Your task to perform on an android device: turn on sleep mode Image 0: 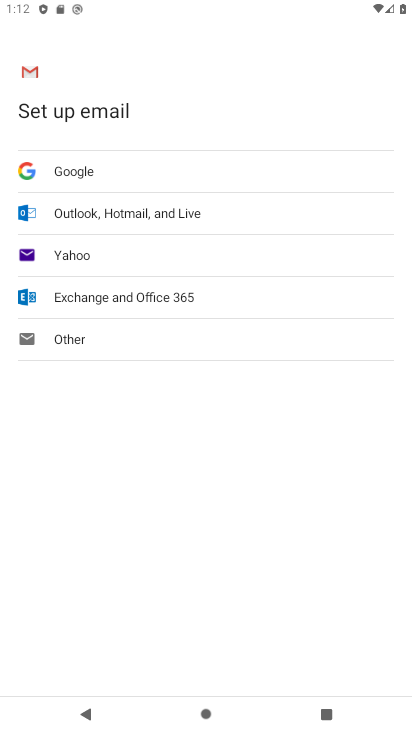
Step 0: press home button
Your task to perform on an android device: turn on sleep mode Image 1: 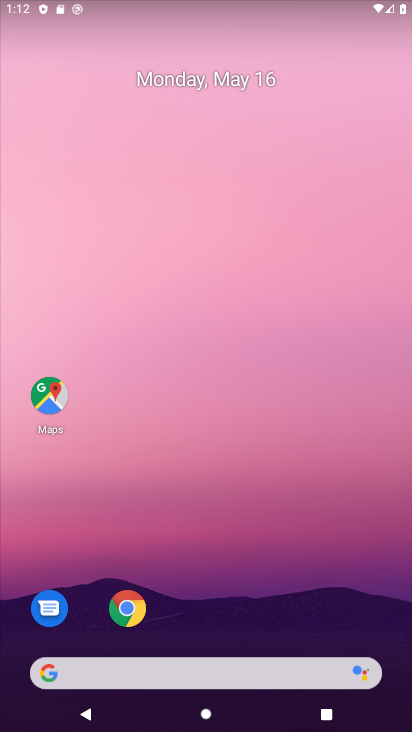
Step 1: drag from (309, 482) to (343, 177)
Your task to perform on an android device: turn on sleep mode Image 2: 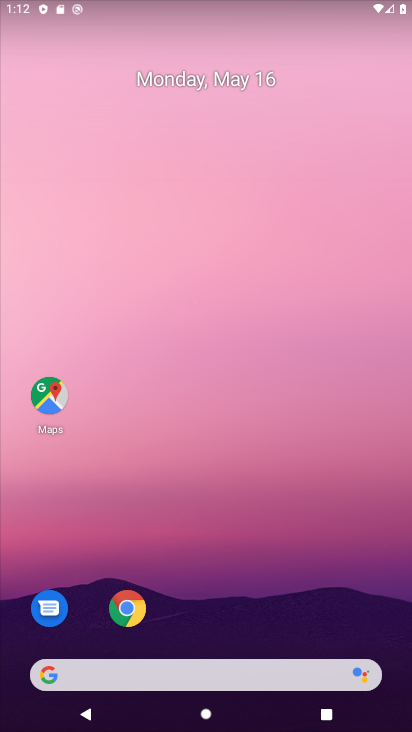
Step 2: drag from (305, 591) to (315, 68)
Your task to perform on an android device: turn on sleep mode Image 3: 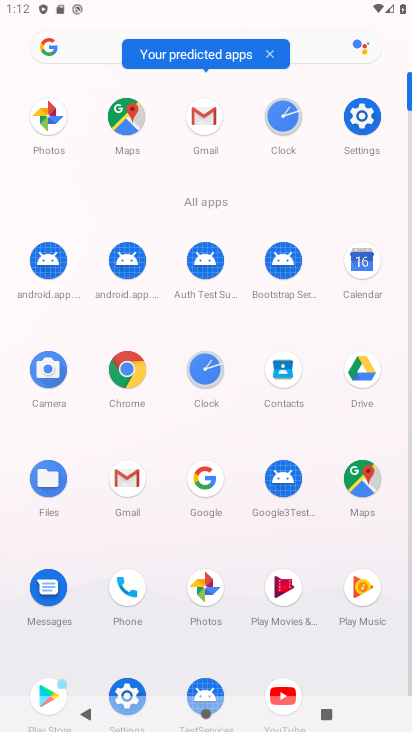
Step 3: click (350, 123)
Your task to perform on an android device: turn on sleep mode Image 4: 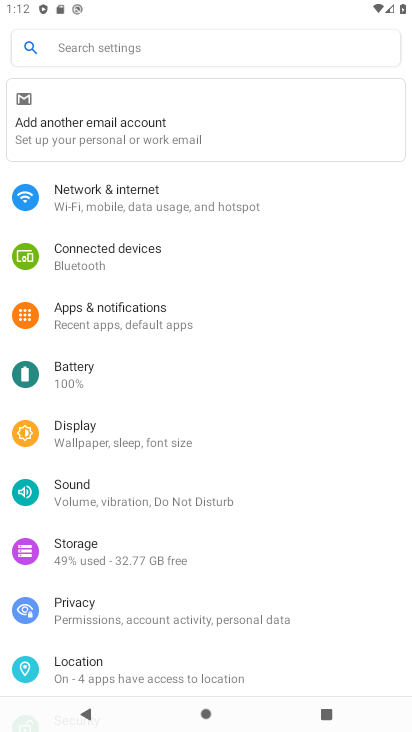
Step 4: click (122, 438)
Your task to perform on an android device: turn on sleep mode Image 5: 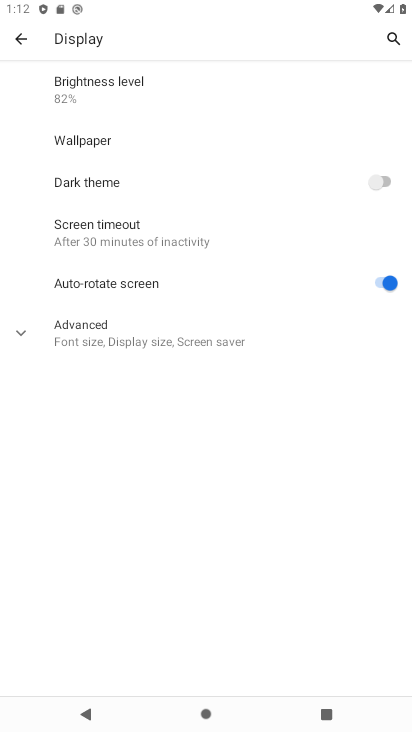
Step 5: click (19, 333)
Your task to perform on an android device: turn on sleep mode Image 6: 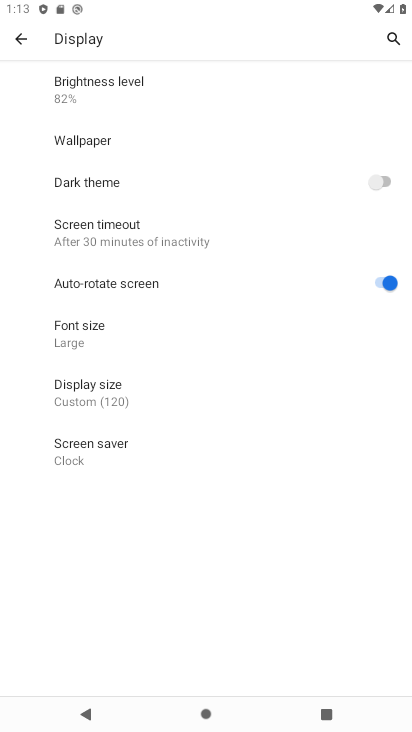
Step 6: task complete